Your task to perform on an android device: open app "Messages" Image 0: 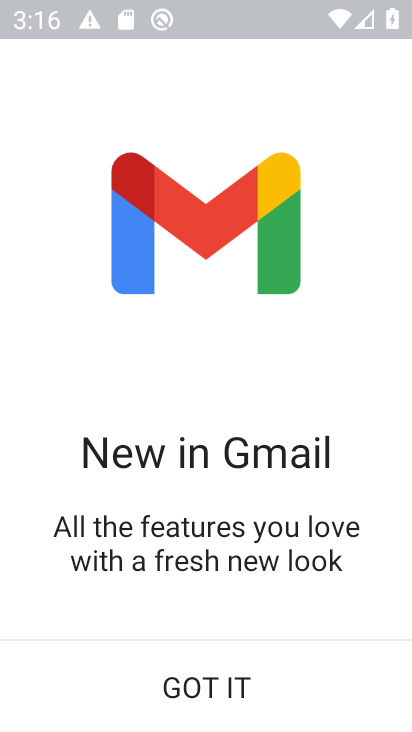
Step 0: press home button
Your task to perform on an android device: open app "Messages" Image 1: 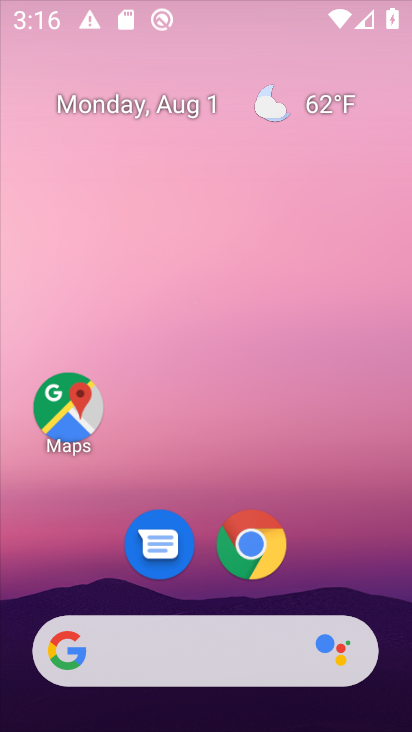
Step 1: drag from (390, 626) to (216, 86)
Your task to perform on an android device: open app "Messages" Image 2: 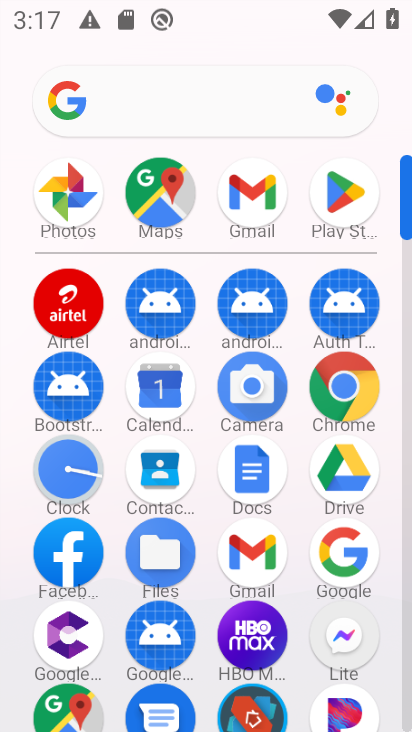
Step 2: click (333, 217)
Your task to perform on an android device: open app "Messages" Image 3: 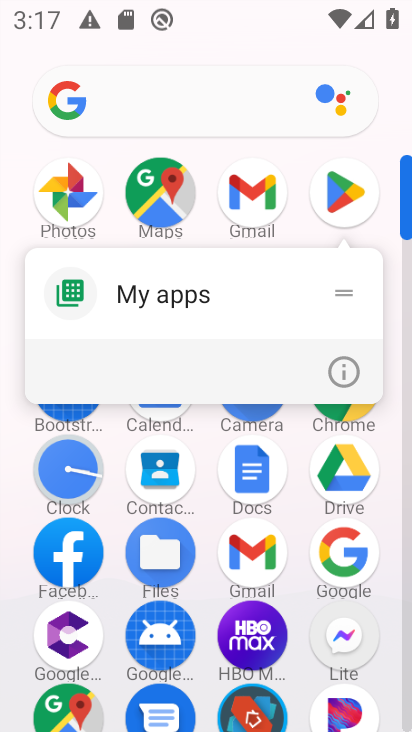
Step 3: click (335, 216)
Your task to perform on an android device: open app "Messages" Image 4: 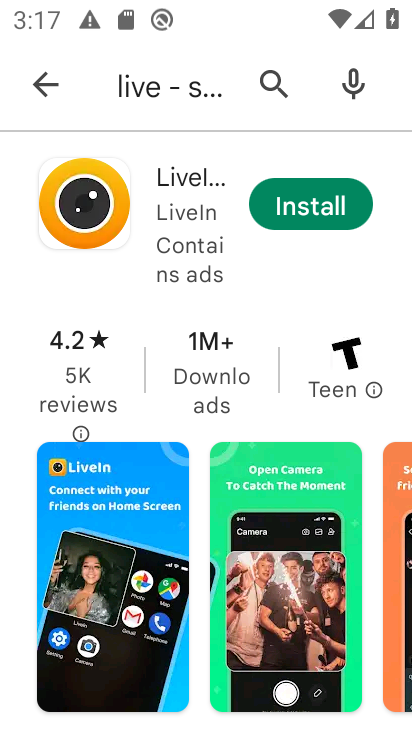
Step 4: press back button
Your task to perform on an android device: open app "Messages" Image 5: 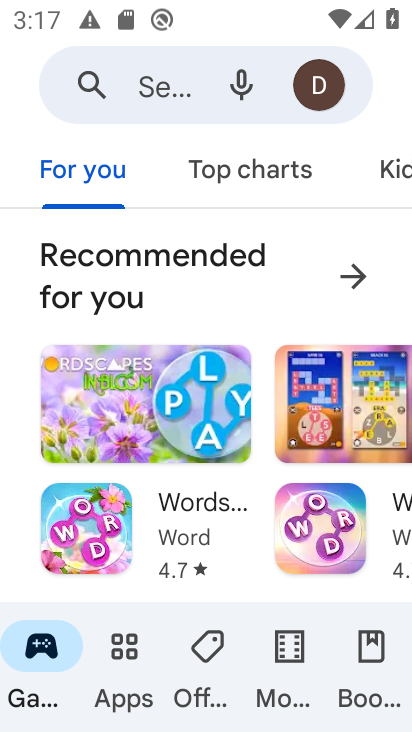
Step 5: click (145, 83)
Your task to perform on an android device: open app "Messages" Image 6: 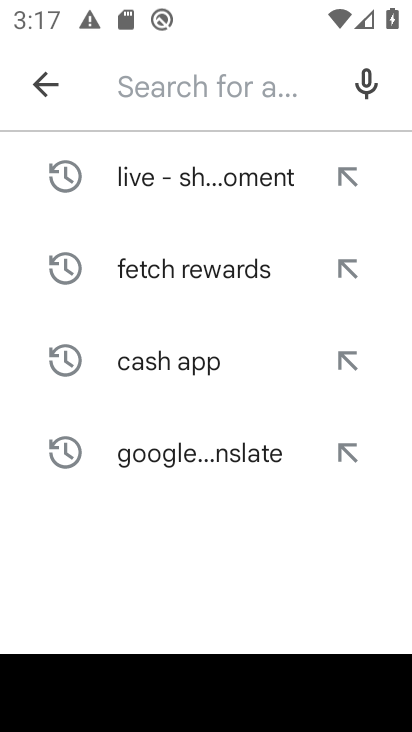
Step 6: type "Messages"
Your task to perform on an android device: open app "Messages" Image 7: 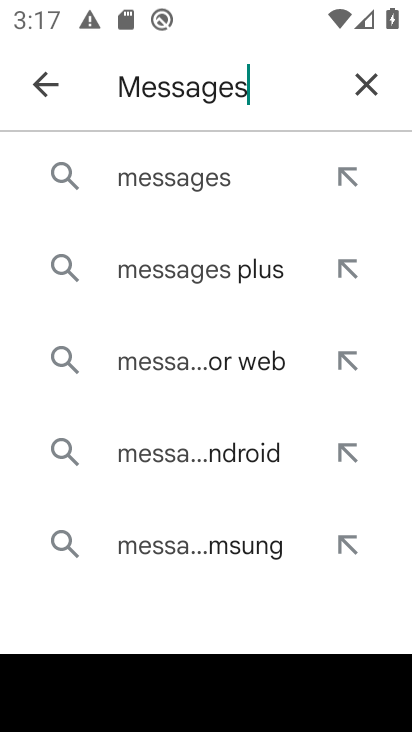
Step 7: click (142, 193)
Your task to perform on an android device: open app "Messages" Image 8: 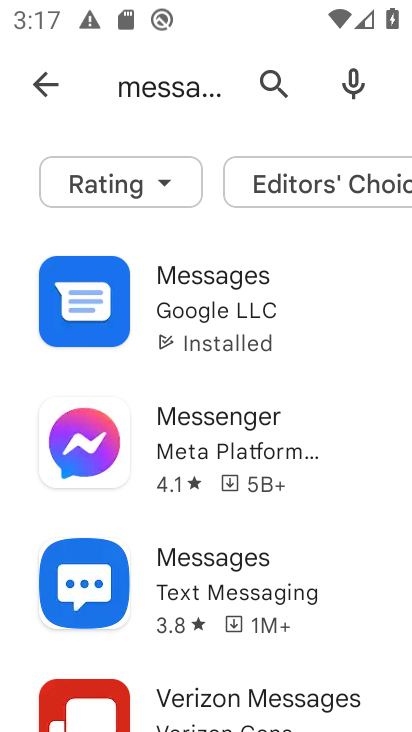
Step 8: task complete